Your task to perform on an android device: Open calendar and show me the second week of next month Image 0: 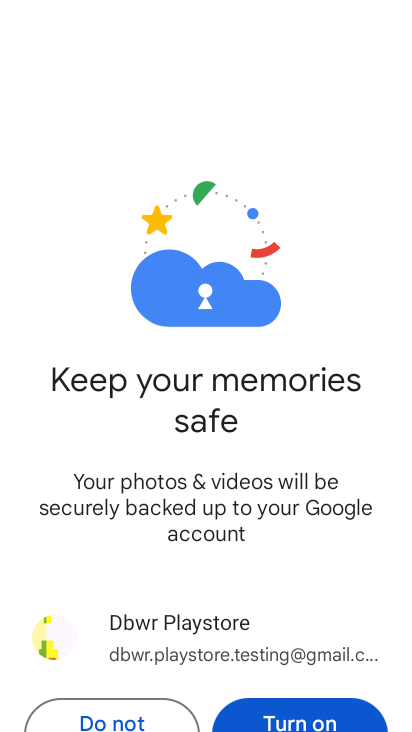
Step 0: press home button
Your task to perform on an android device: Open calendar and show me the second week of next month Image 1: 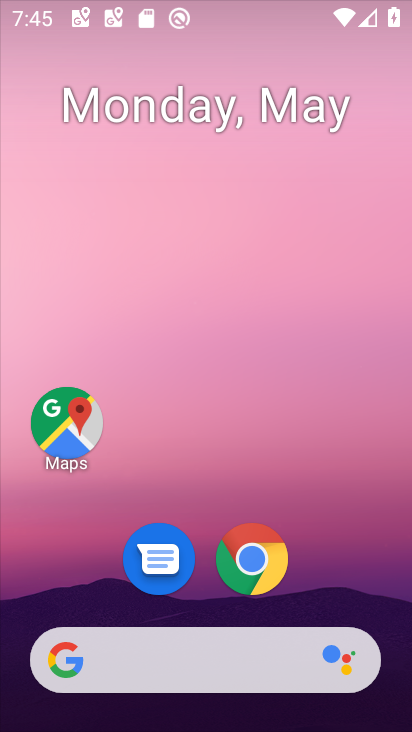
Step 1: drag from (394, 644) to (287, 132)
Your task to perform on an android device: Open calendar and show me the second week of next month Image 2: 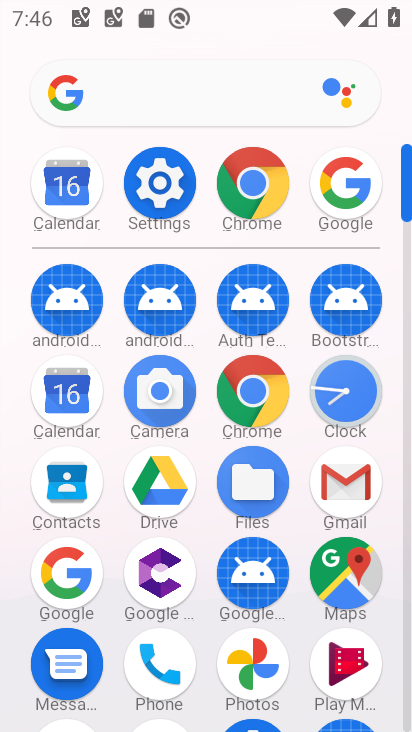
Step 2: click (76, 375)
Your task to perform on an android device: Open calendar and show me the second week of next month Image 3: 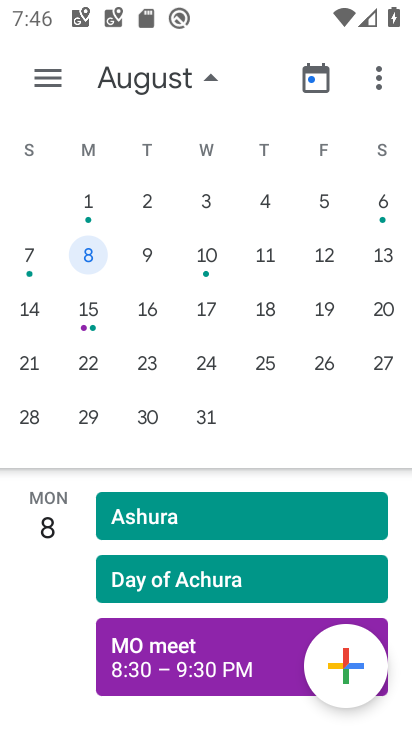
Step 3: drag from (341, 347) to (0, 355)
Your task to perform on an android device: Open calendar and show me the second week of next month Image 4: 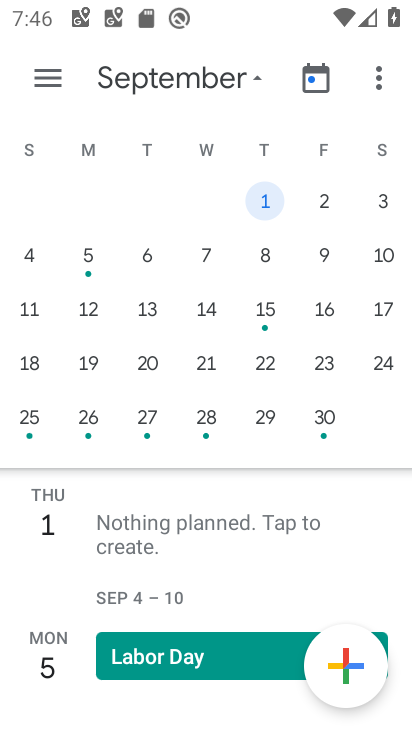
Step 4: click (251, 313)
Your task to perform on an android device: Open calendar and show me the second week of next month Image 5: 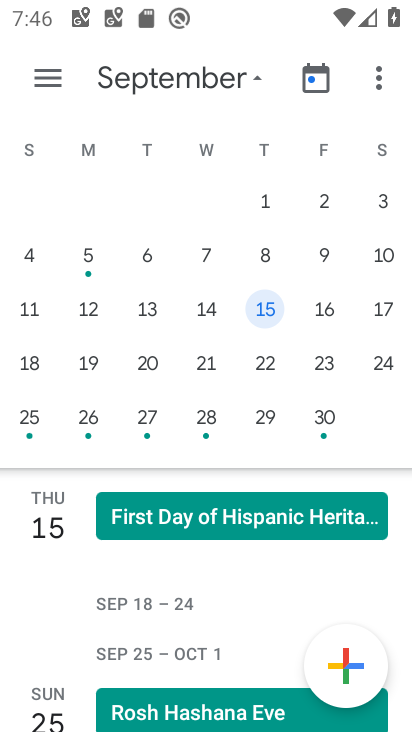
Step 5: task complete